Your task to perform on an android device: Open CNN.com Image 0: 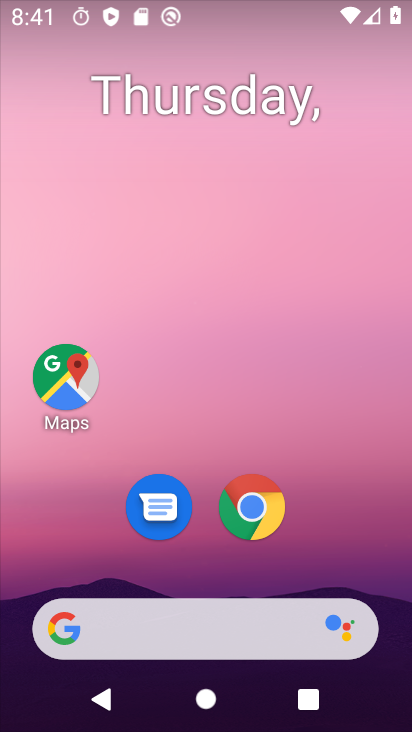
Step 0: click (248, 510)
Your task to perform on an android device: Open CNN.com Image 1: 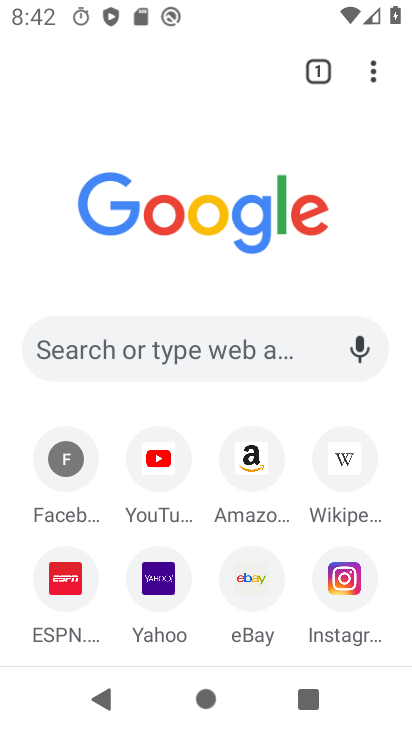
Step 1: click (175, 358)
Your task to perform on an android device: Open CNN.com Image 2: 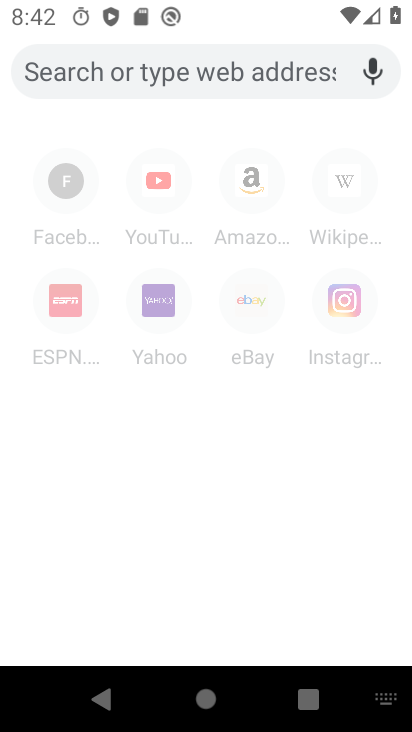
Step 2: type "CNN.com"
Your task to perform on an android device: Open CNN.com Image 3: 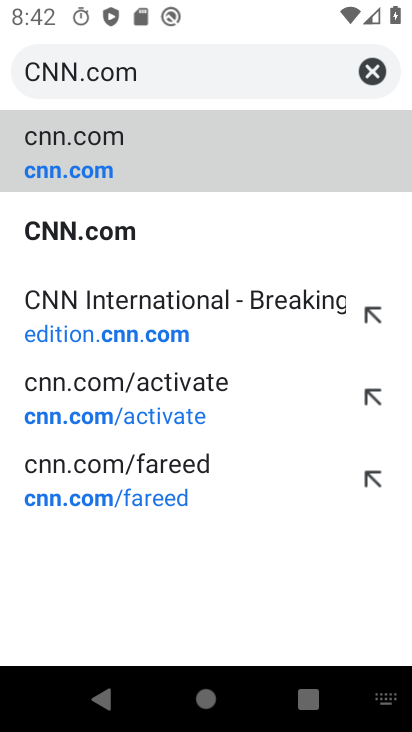
Step 3: click (145, 169)
Your task to perform on an android device: Open CNN.com Image 4: 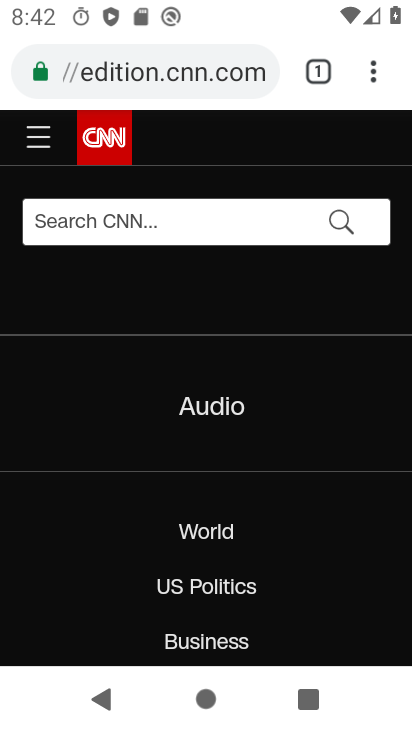
Step 4: task complete